Your task to perform on an android device: Play the last video I watched on Youtube Image 0: 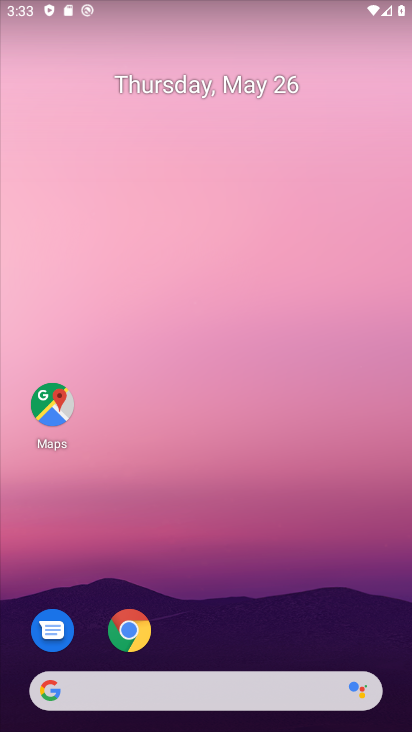
Step 0: drag from (241, 627) to (311, 166)
Your task to perform on an android device: Play the last video I watched on Youtube Image 1: 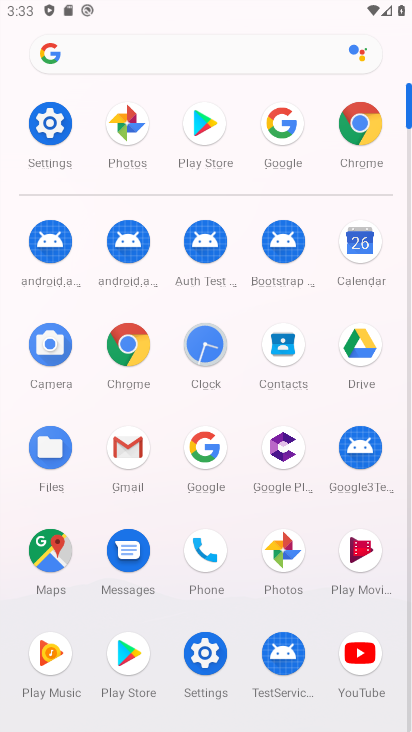
Step 1: drag from (321, 626) to (322, 434)
Your task to perform on an android device: Play the last video I watched on Youtube Image 2: 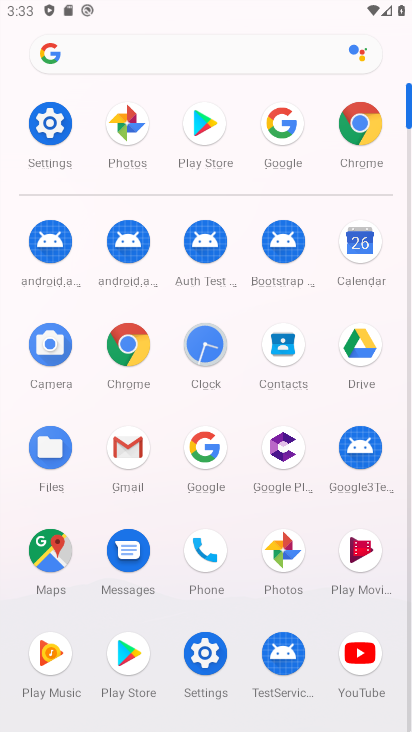
Step 2: click (363, 652)
Your task to perform on an android device: Play the last video I watched on Youtube Image 3: 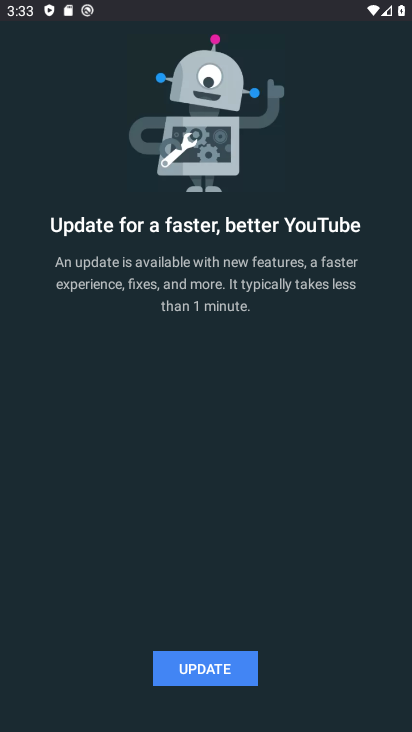
Step 3: click (200, 668)
Your task to perform on an android device: Play the last video I watched on Youtube Image 4: 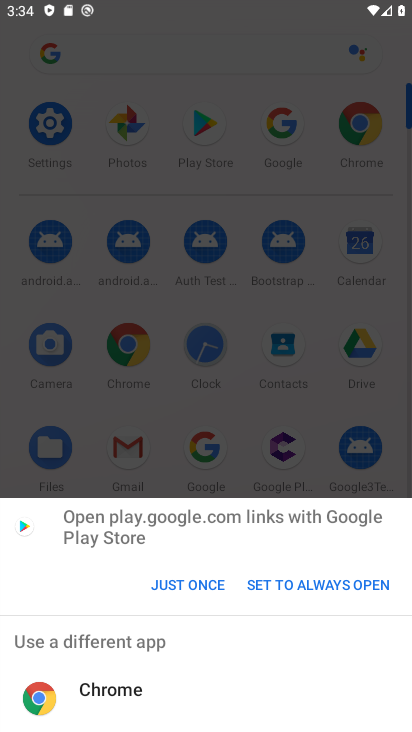
Step 4: click (191, 579)
Your task to perform on an android device: Play the last video I watched on Youtube Image 5: 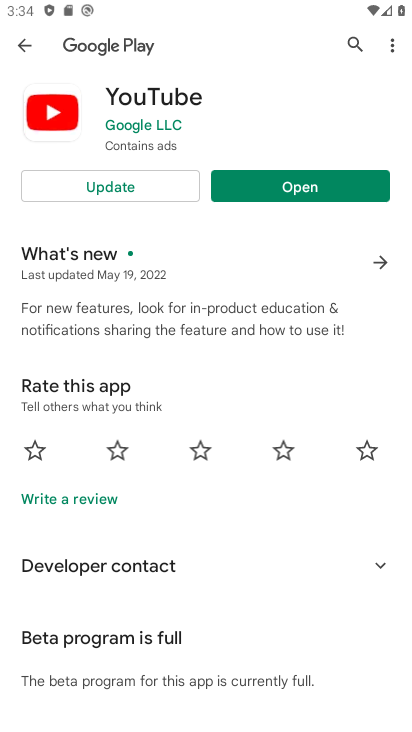
Step 5: click (149, 189)
Your task to perform on an android device: Play the last video I watched on Youtube Image 6: 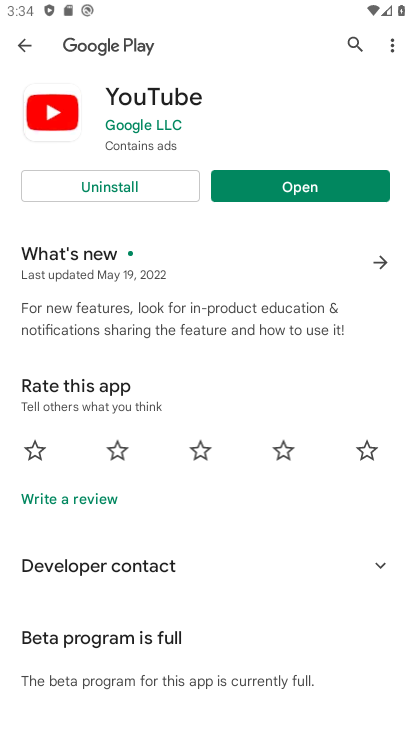
Step 6: click (292, 183)
Your task to perform on an android device: Play the last video I watched on Youtube Image 7: 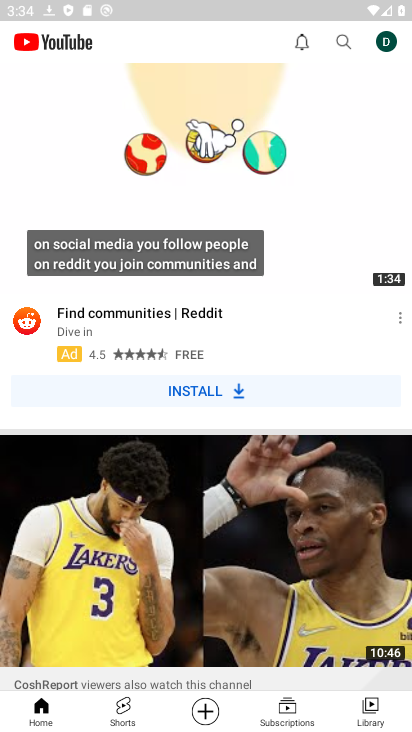
Step 7: click (366, 703)
Your task to perform on an android device: Play the last video I watched on Youtube Image 8: 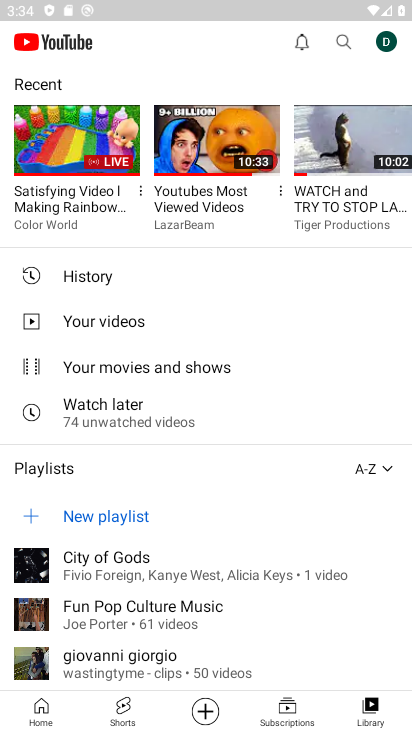
Step 8: click (78, 152)
Your task to perform on an android device: Play the last video I watched on Youtube Image 9: 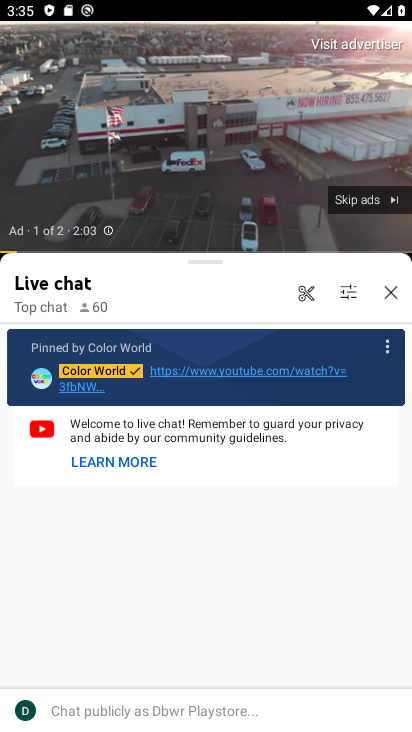
Step 9: click (376, 202)
Your task to perform on an android device: Play the last video I watched on Youtube Image 10: 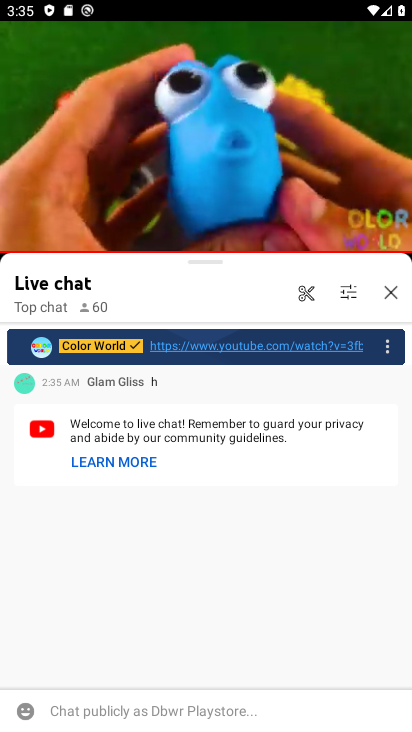
Step 10: click (223, 136)
Your task to perform on an android device: Play the last video I watched on Youtube Image 11: 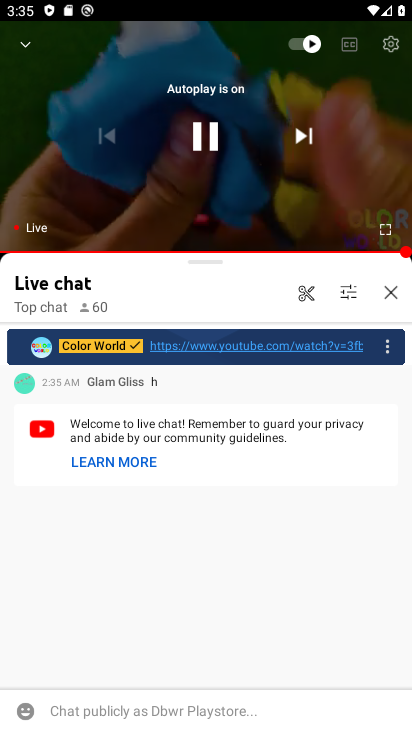
Step 11: click (223, 136)
Your task to perform on an android device: Play the last video I watched on Youtube Image 12: 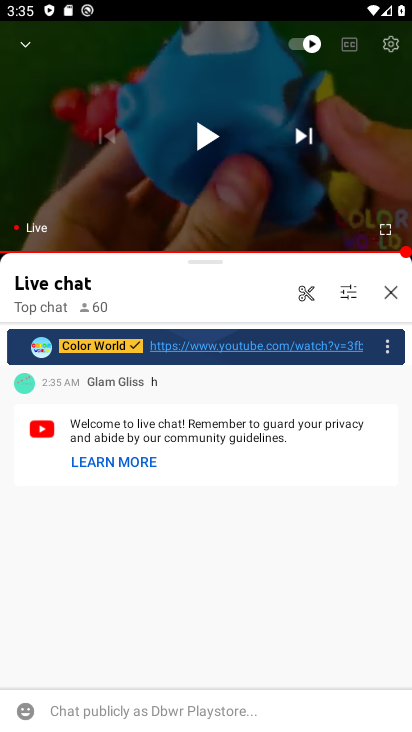
Step 12: task complete